Your task to perform on an android device: Open the stopwatch Image 0: 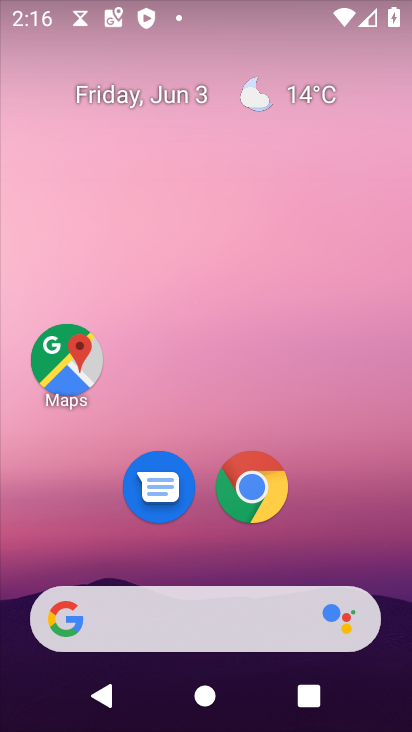
Step 0: drag from (356, 549) to (217, 50)
Your task to perform on an android device: Open the stopwatch Image 1: 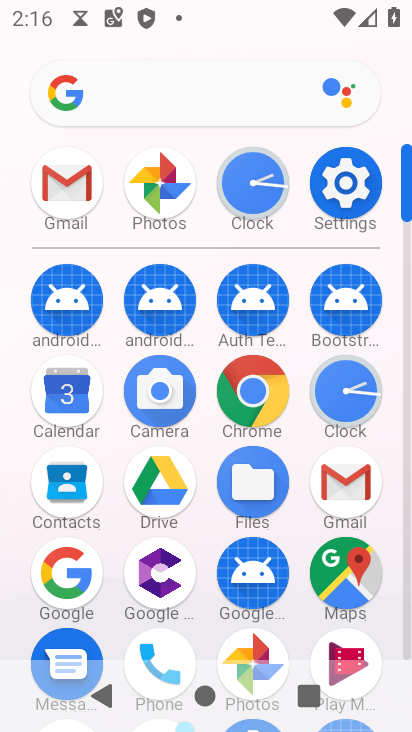
Step 1: click (348, 389)
Your task to perform on an android device: Open the stopwatch Image 2: 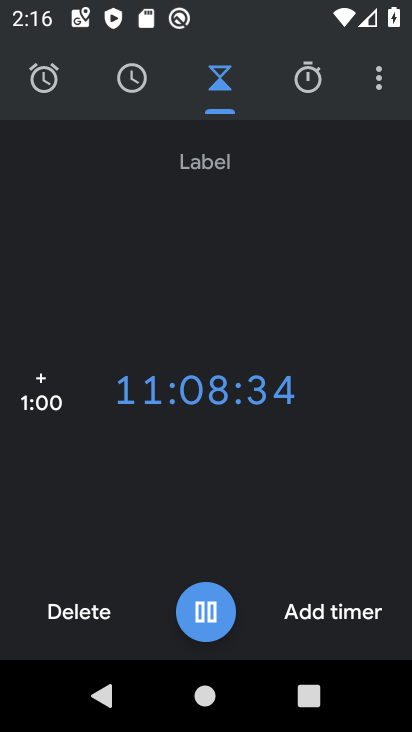
Step 2: click (314, 80)
Your task to perform on an android device: Open the stopwatch Image 3: 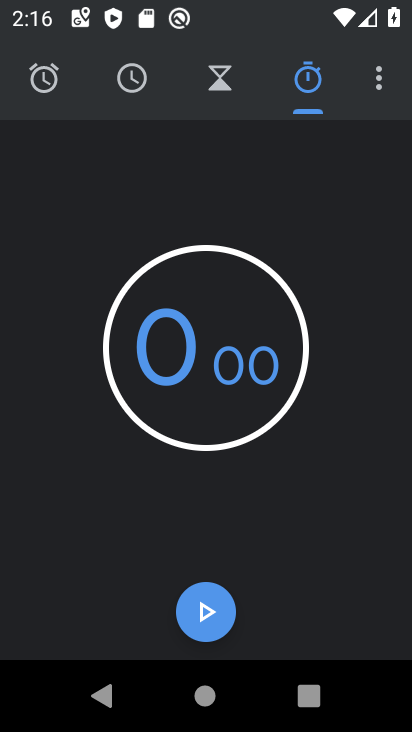
Step 3: task complete